Your task to perform on an android device: Search for vegetarian restaurants on Maps Image 0: 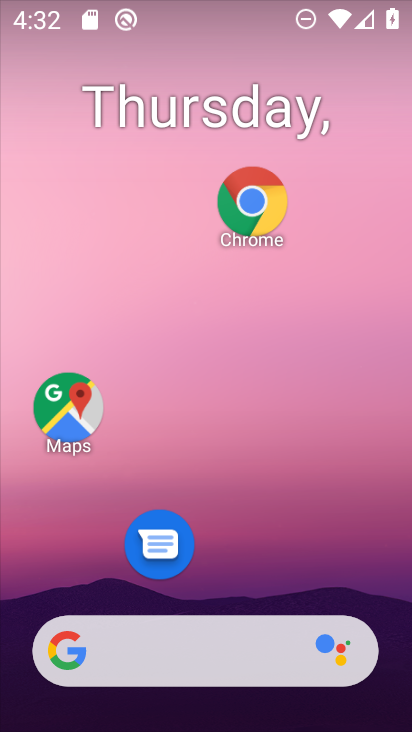
Step 0: click (81, 398)
Your task to perform on an android device: Search for vegetarian restaurants on Maps Image 1: 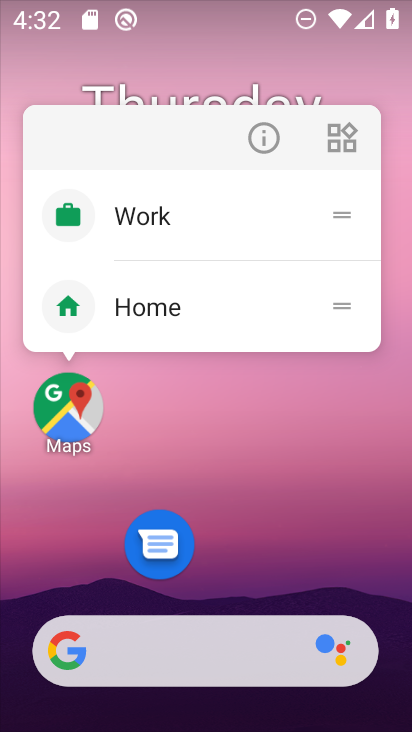
Step 1: click (54, 401)
Your task to perform on an android device: Search for vegetarian restaurants on Maps Image 2: 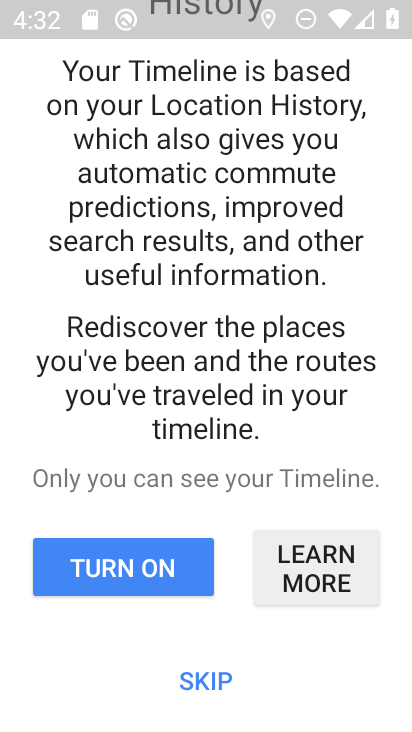
Step 2: click (196, 682)
Your task to perform on an android device: Search for vegetarian restaurants on Maps Image 3: 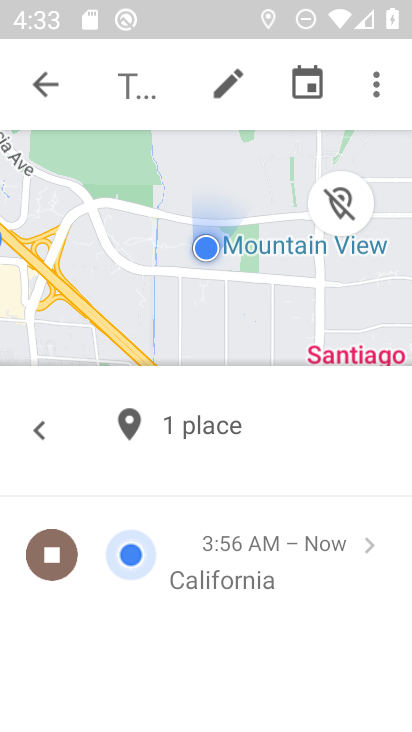
Step 3: click (52, 85)
Your task to perform on an android device: Search for vegetarian restaurants on Maps Image 4: 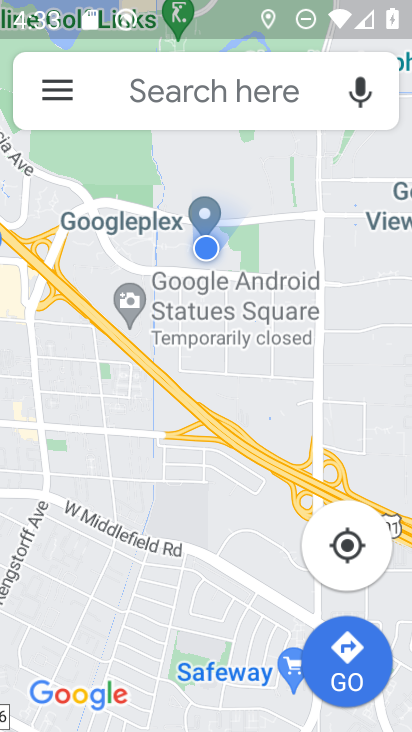
Step 4: click (53, 79)
Your task to perform on an android device: Search for vegetarian restaurants on Maps Image 5: 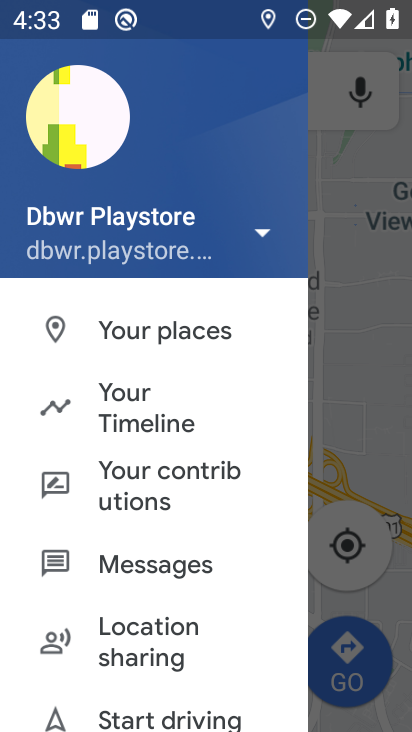
Step 5: click (333, 88)
Your task to perform on an android device: Search for vegetarian restaurants on Maps Image 6: 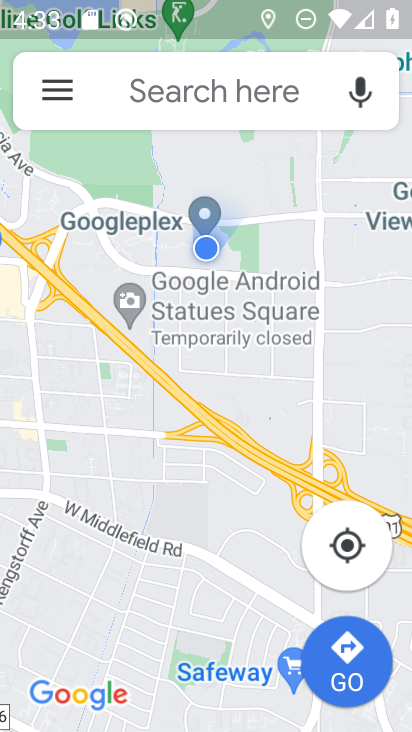
Step 6: click (282, 95)
Your task to perform on an android device: Search for vegetarian restaurants on Maps Image 7: 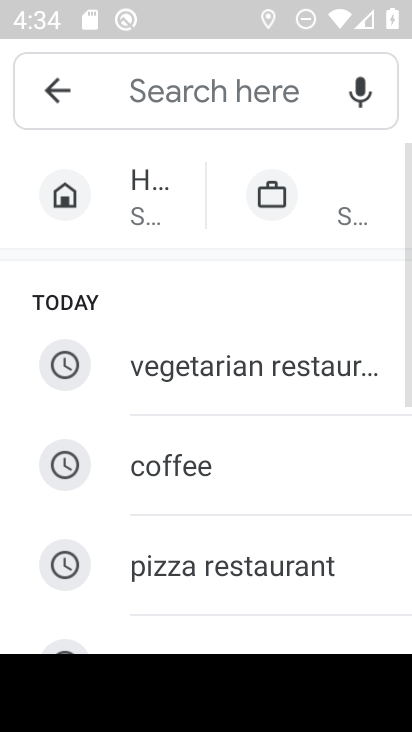
Step 7: click (224, 371)
Your task to perform on an android device: Search for vegetarian restaurants on Maps Image 8: 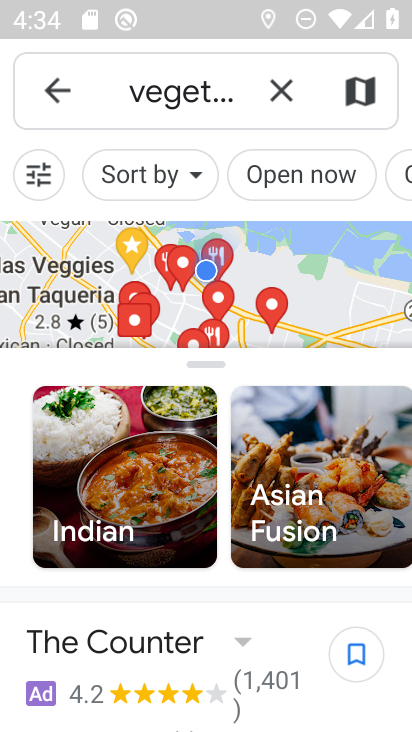
Step 8: task complete